Your task to perform on an android device: check data usage Image 0: 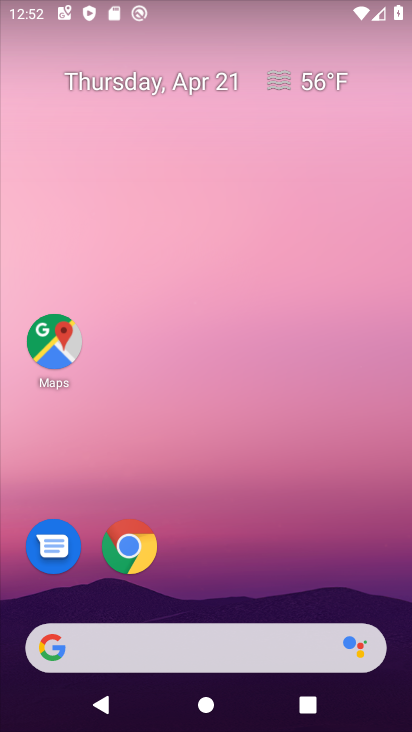
Step 0: drag from (180, 650) to (290, 298)
Your task to perform on an android device: check data usage Image 1: 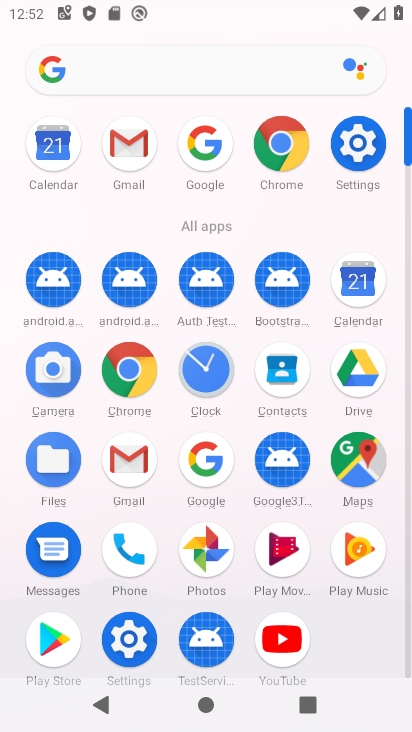
Step 1: click (355, 144)
Your task to perform on an android device: check data usage Image 2: 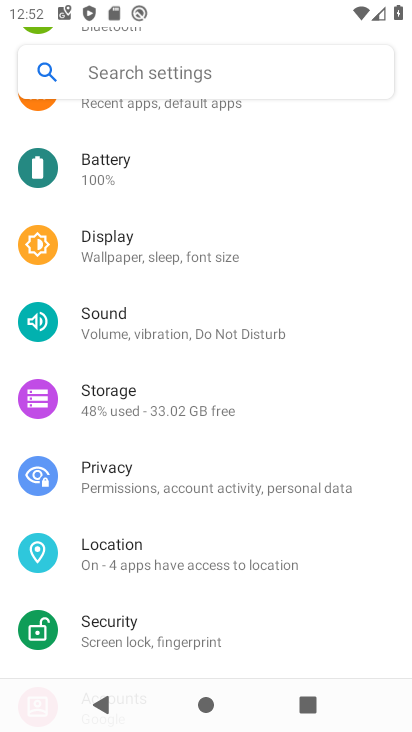
Step 2: drag from (271, 161) to (133, 605)
Your task to perform on an android device: check data usage Image 3: 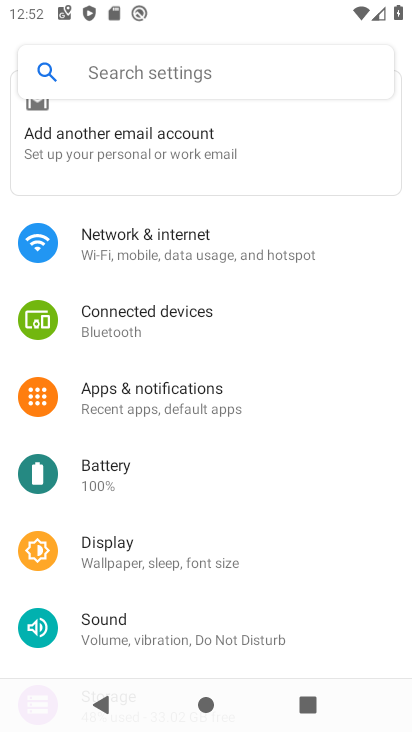
Step 3: click (187, 249)
Your task to perform on an android device: check data usage Image 4: 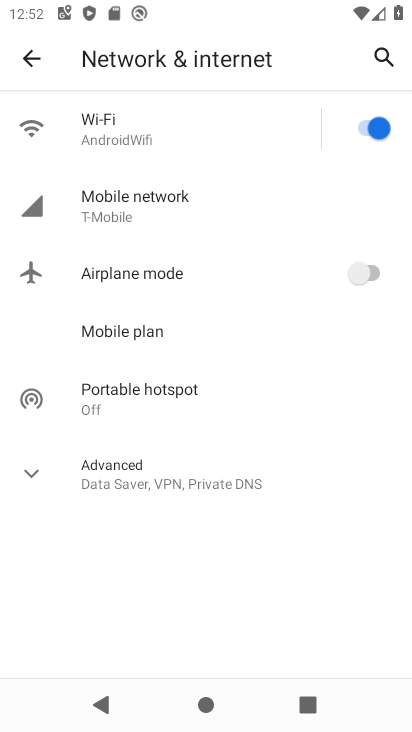
Step 4: click (131, 127)
Your task to perform on an android device: check data usage Image 5: 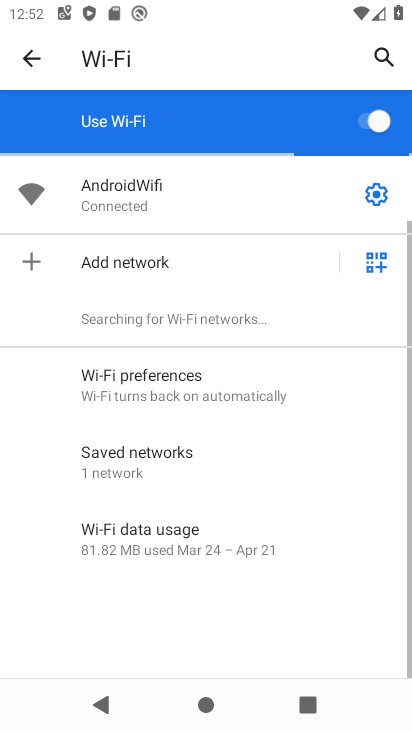
Step 5: click (162, 546)
Your task to perform on an android device: check data usage Image 6: 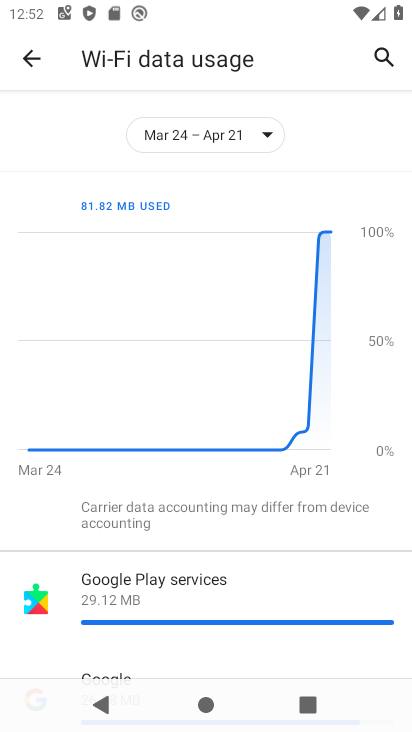
Step 6: task complete